Your task to perform on an android device: Is it going to rain this weekend? Image 0: 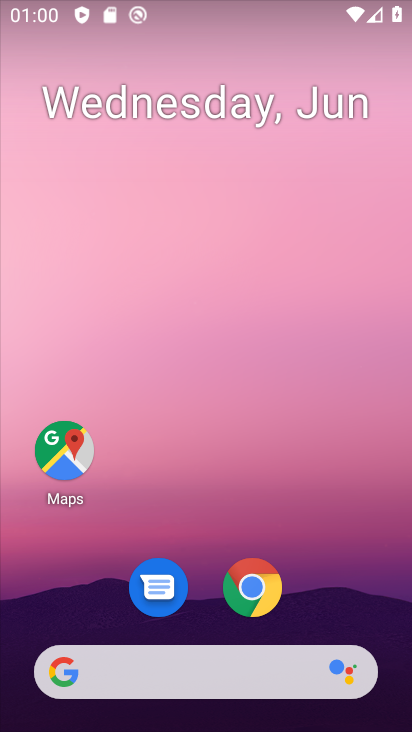
Step 0: click (250, 588)
Your task to perform on an android device: Is it going to rain this weekend? Image 1: 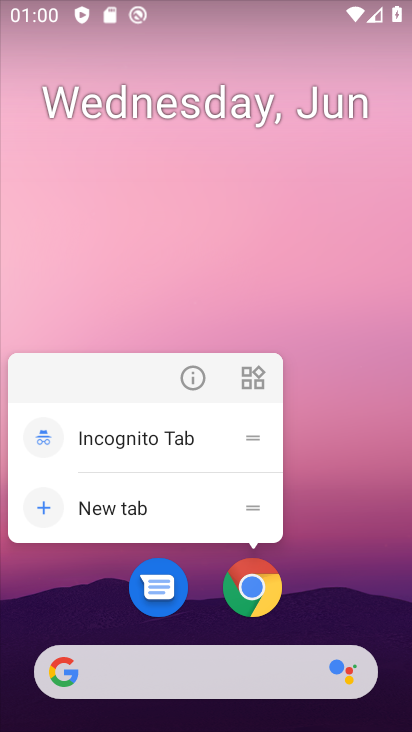
Step 1: click (257, 603)
Your task to perform on an android device: Is it going to rain this weekend? Image 2: 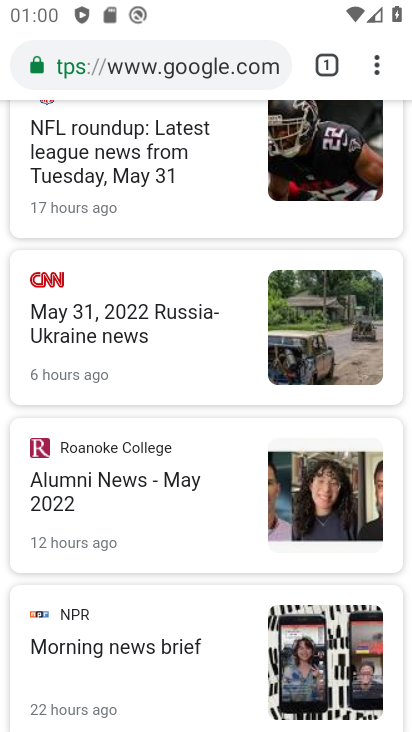
Step 2: click (188, 58)
Your task to perform on an android device: Is it going to rain this weekend? Image 3: 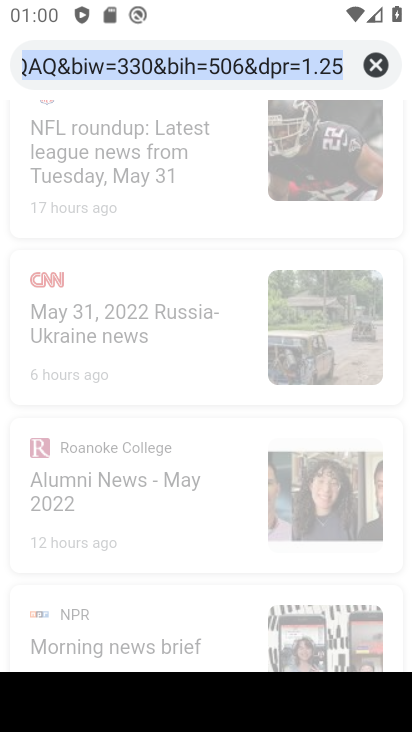
Step 3: type ""
Your task to perform on an android device: Is it going to rain this weekend? Image 4: 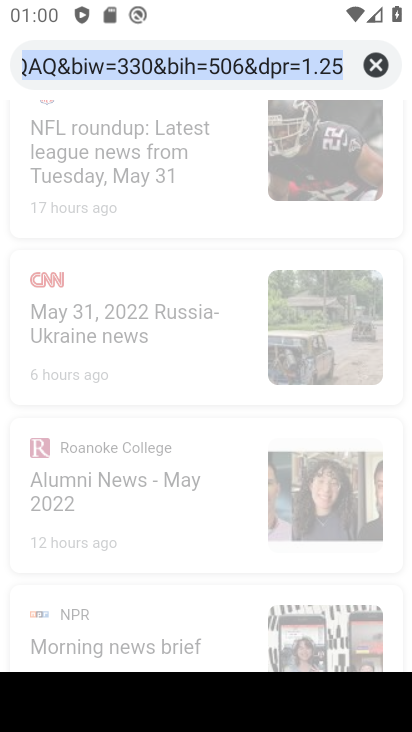
Step 4: type "weather weekend"
Your task to perform on an android device: Is it going to rain this weekend? Image 5: 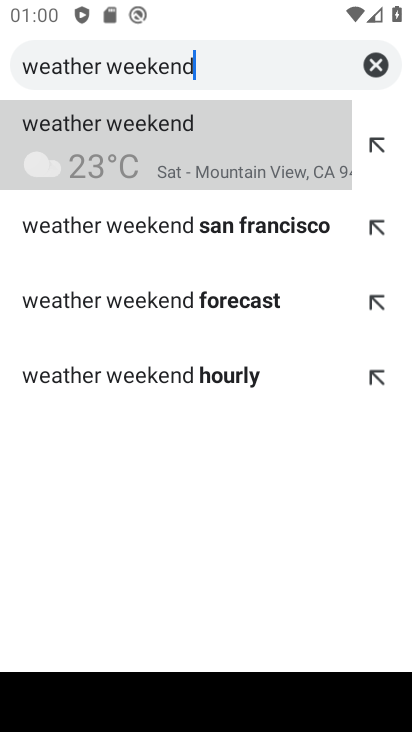
Step 5: click (145, 115)
Your task to perform on an android device: Is it going to rain this weekend? Image 6: 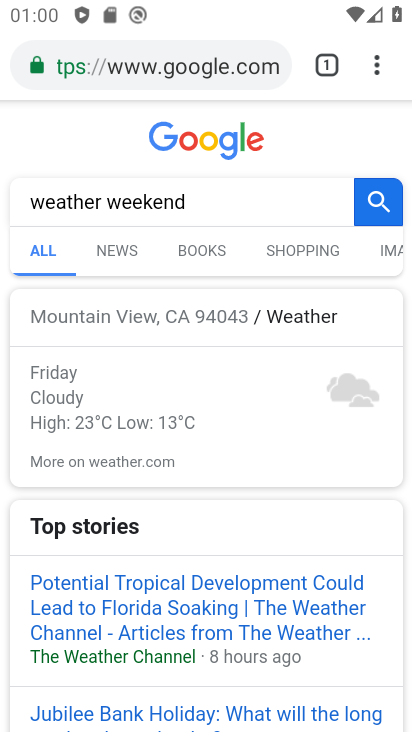
Step 6: drag from (206, 470) to (301, 148)
Your task to perform on an android device: Is it going to rain this weekend? Image 7: 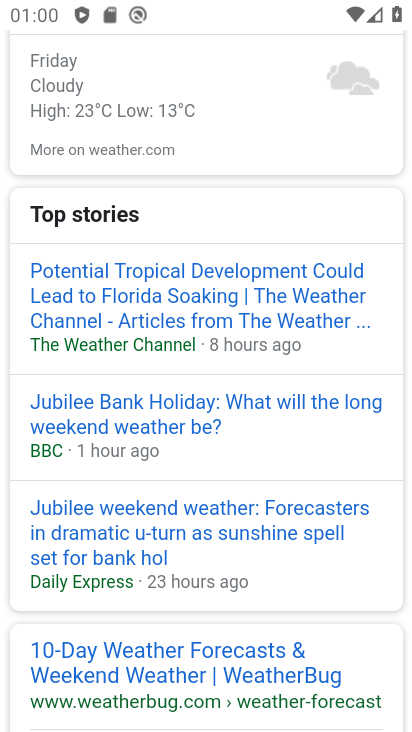
Step 7: drag from (200, 577) to (277, 194)
Your task to perform on an android device: Is it going to rain this weekend? Image 8: 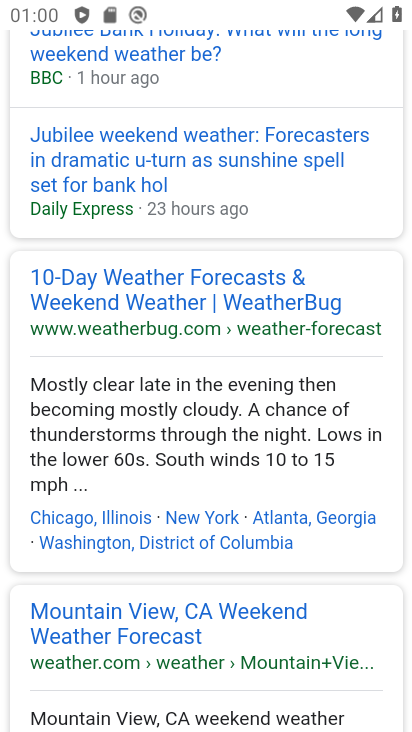
Step 8: click (139, 664)
Your task to perform on an android device: Is it going to rain this weekend? Image 9: 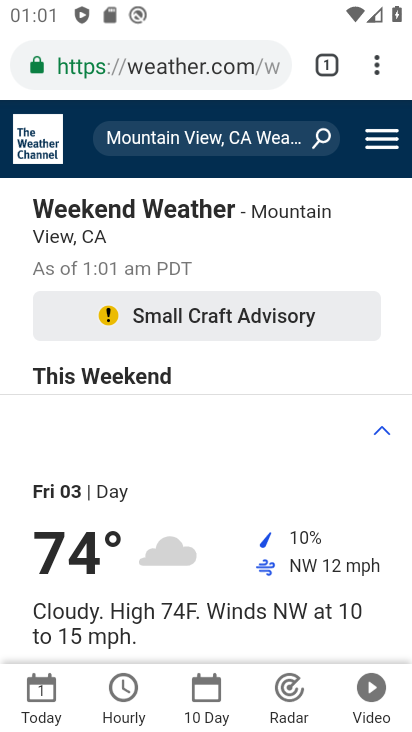
Step 9: drag from (200, 481) to (209, 268)
Your task to perform on an android device: Is it going to rain this weekend? Image 10: 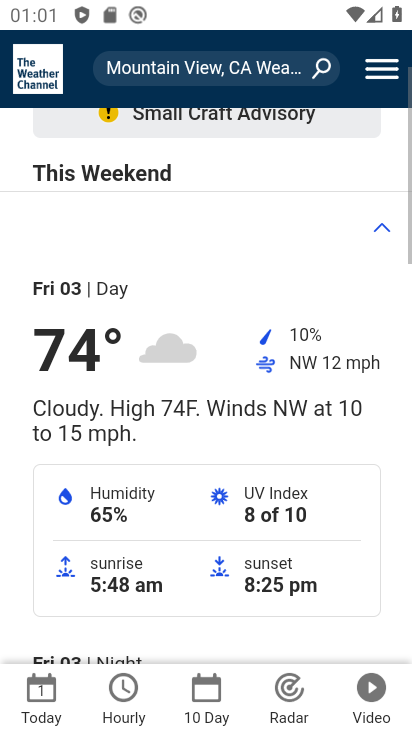
Step 10: click (214, 695)
Your task to perform on an android device: Is it going to rain this weekend? Image 11: 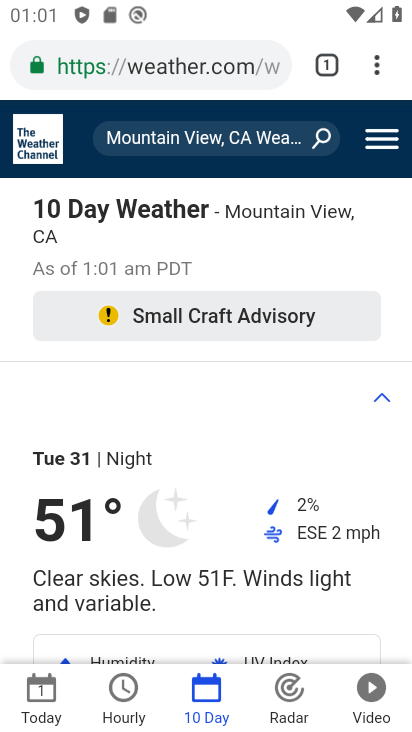
Step 11: task complete